Your task to perform on an android device: set an alarm Image 0: 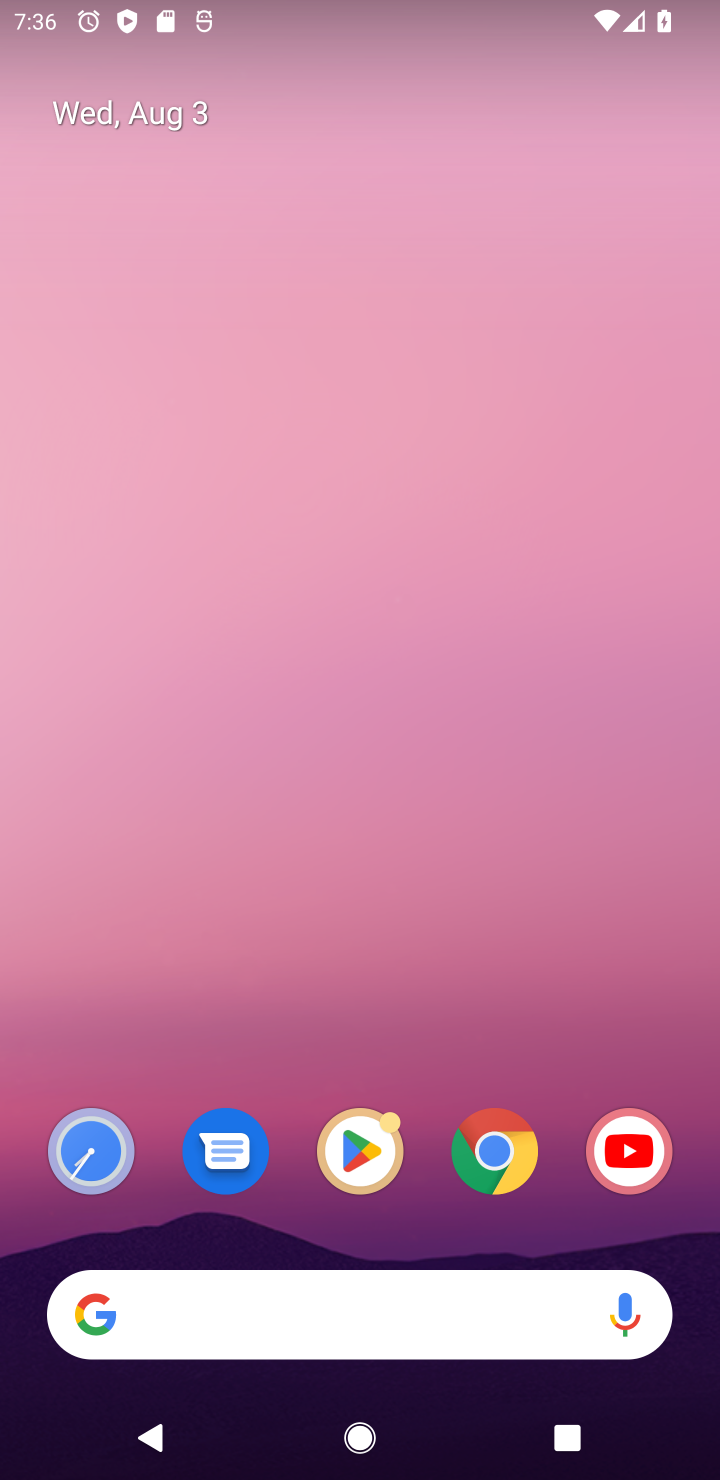
Step 0: click (101, 1146)
Your task to perform on an android device: set an alarm Image 1: 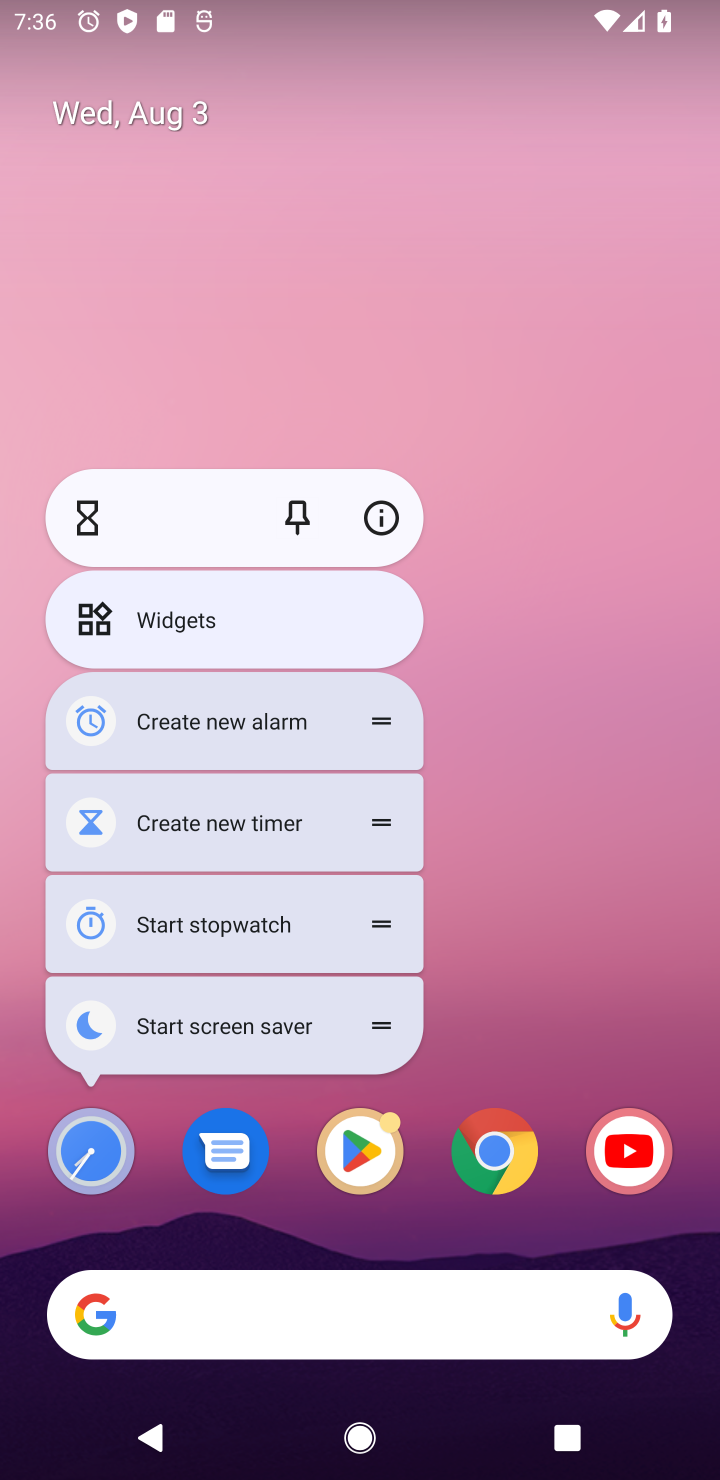
Step 1: click (92, 1157)
Your task to perform on an android device: set an alarm Image 2: 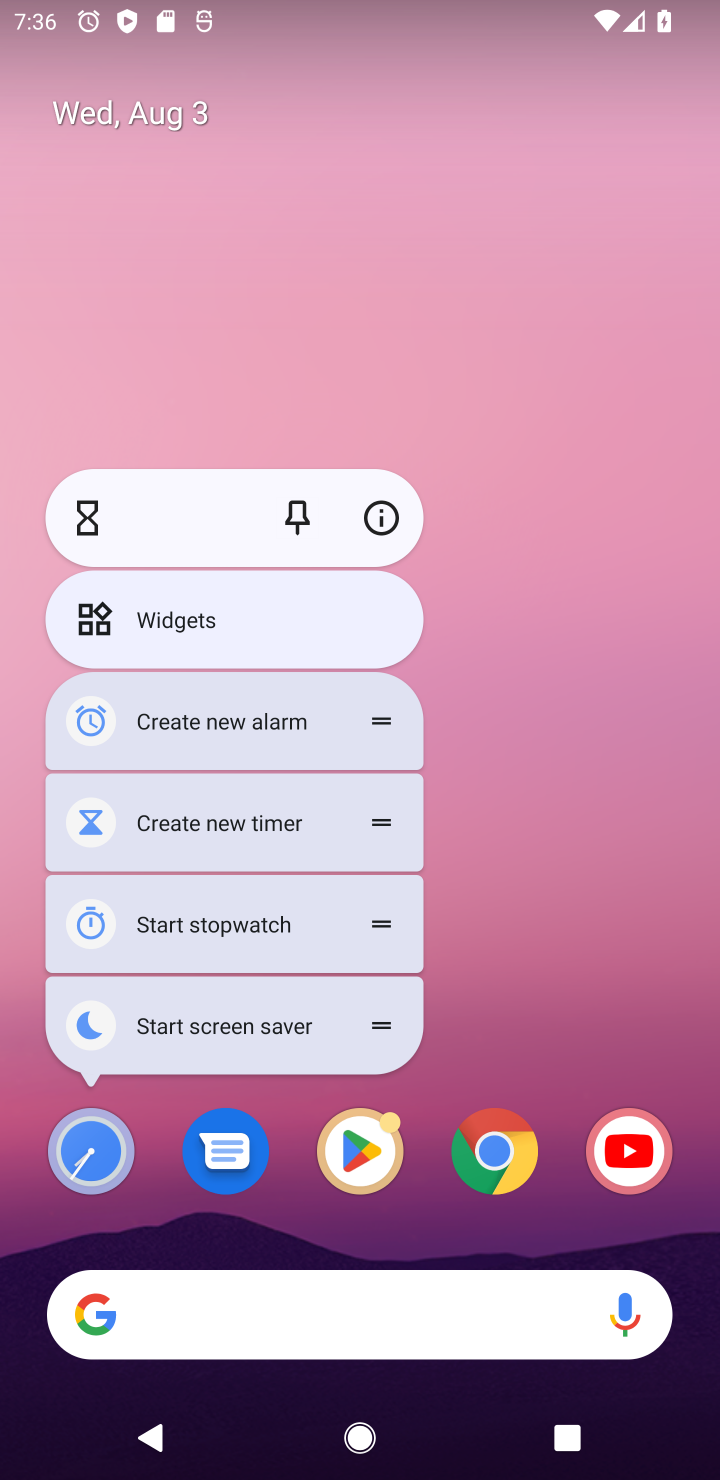
Step 2: click (92, 1158)
Your task to perform on an android device: set an alarm Image 3: 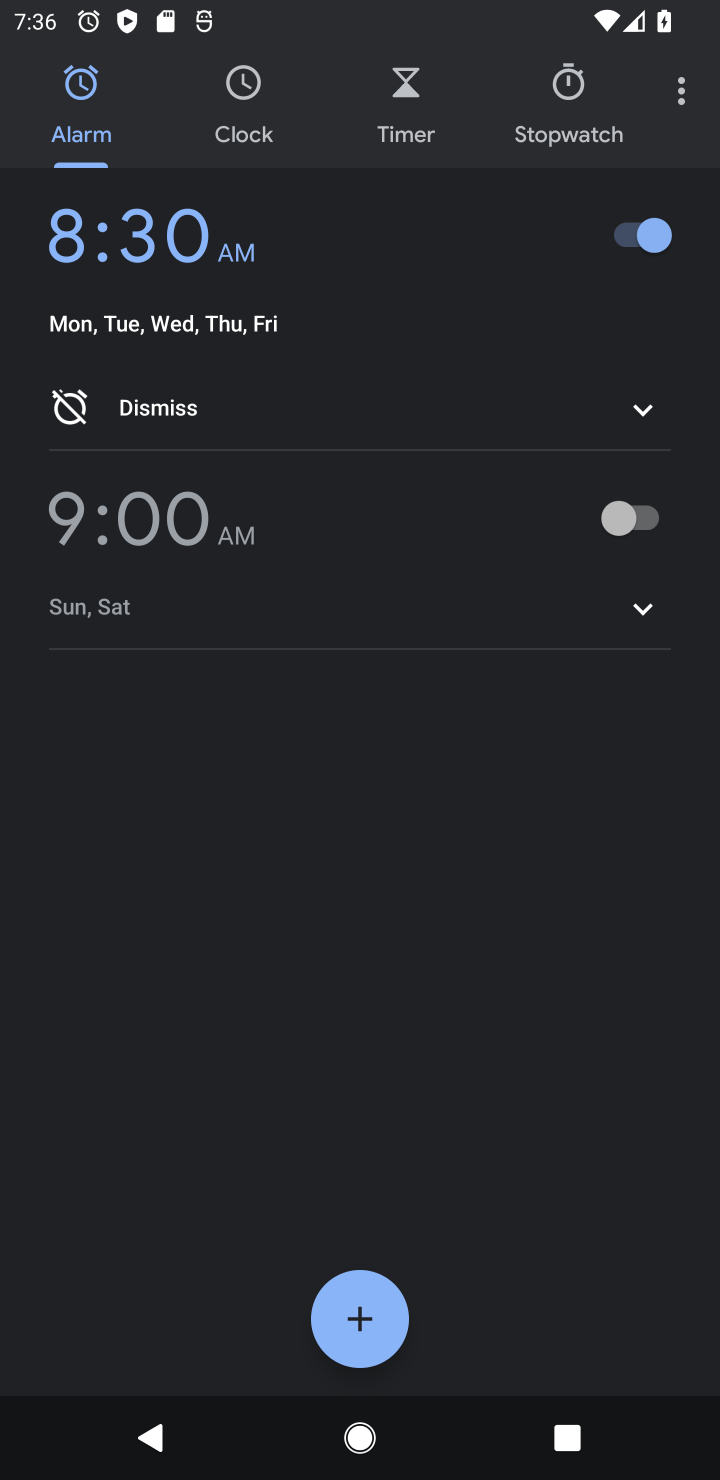
Step 3: click (633, 516)
Your task to perform on an android device: set an alarm Image 4: 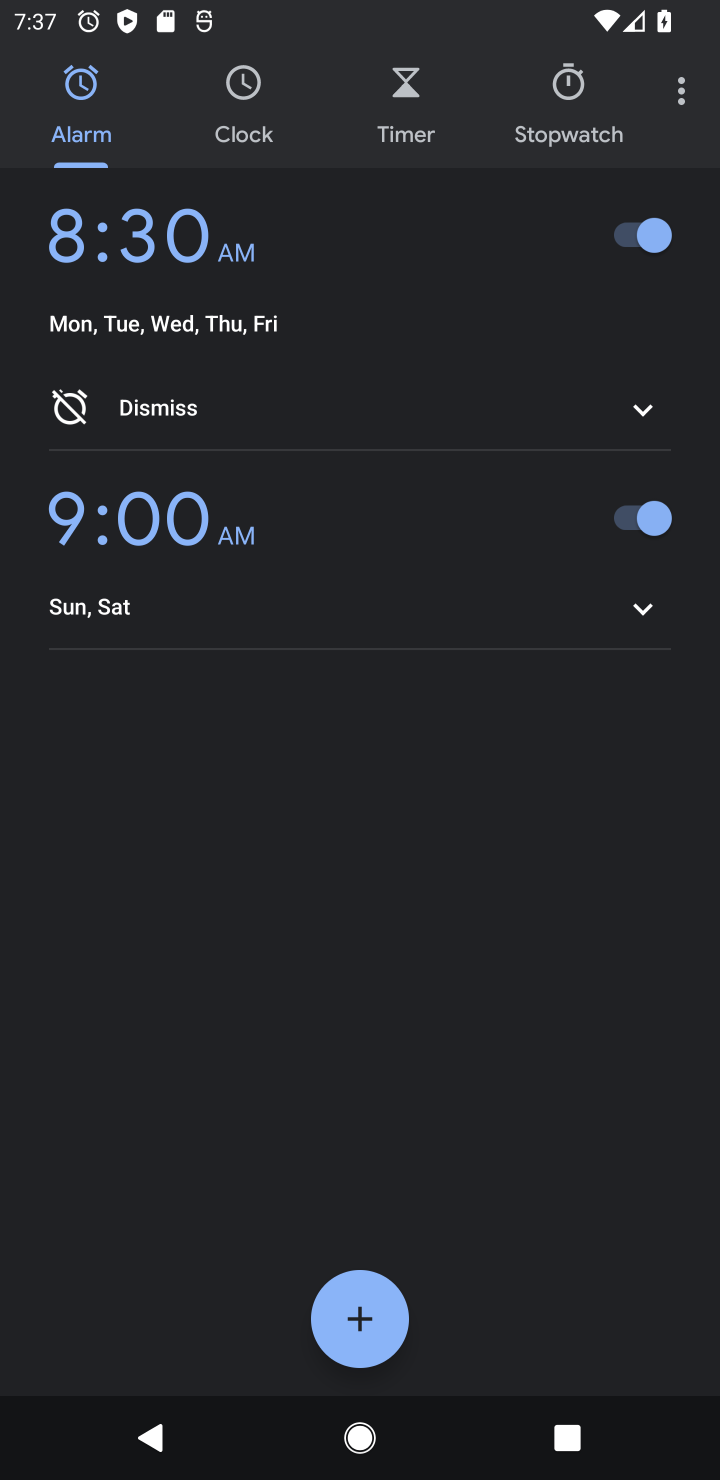
Step 4: task complete